Your task to perform on an android device: toggle data saver in the chrome app Image 0: 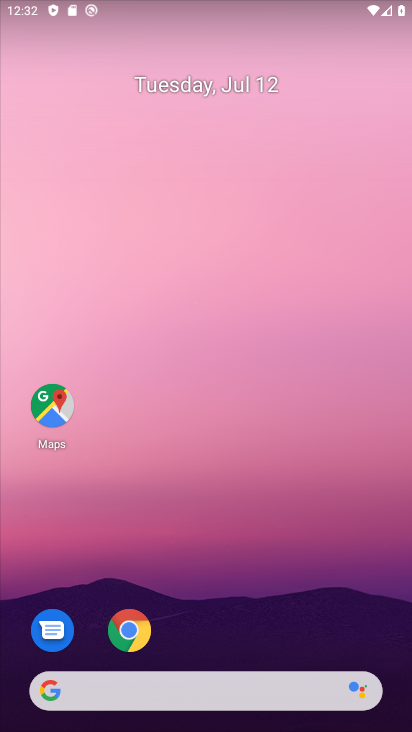
Step 0: click (141, 630)
Your task to perform on an android device: toggle data saver in the chrome app Image 1: 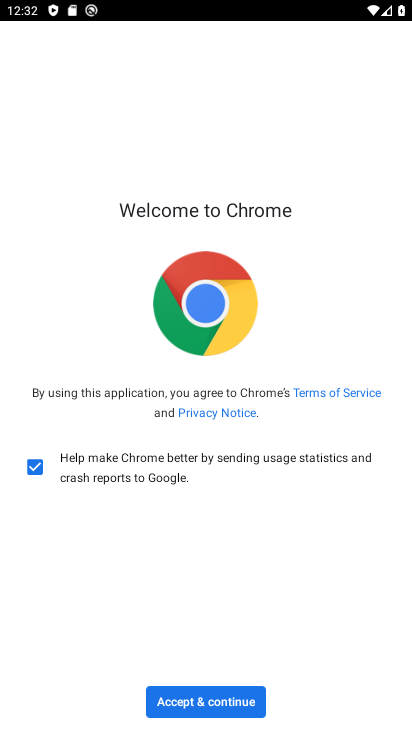
Step 1: click (243, 698)
Your task to perform on an android device: toggle data saver in the chrome app Image 2: 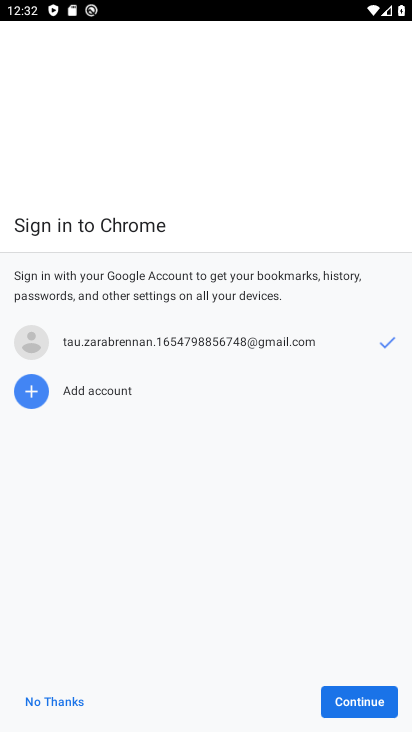
Step 2: click (243, 698)
Your task to perform on an android device: toggle data saver in the chrome app Image 3: 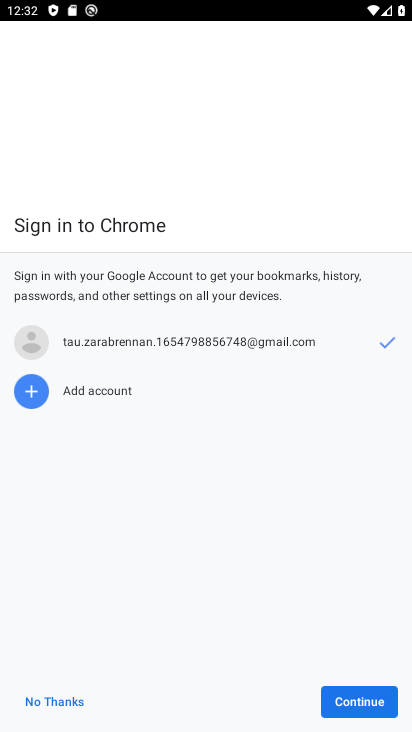
Step 3: click (333, 697)
Your task to perform on an android device: toggle data saver in the chrome app Image 4: 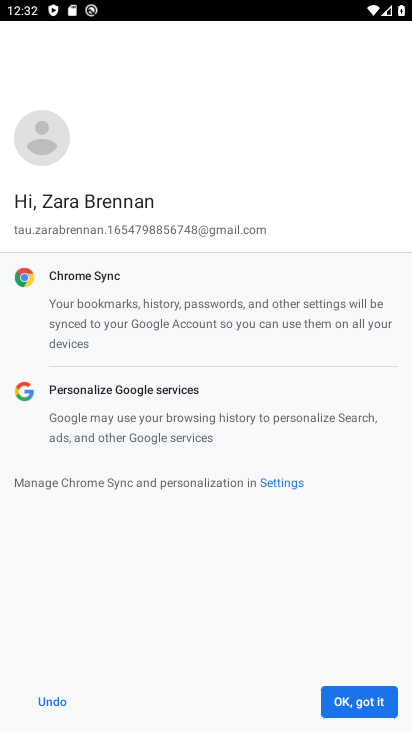
Step 4: click (333, 697)
Your task to perform on an android device: toggle data saver in the chrome app Image 5: 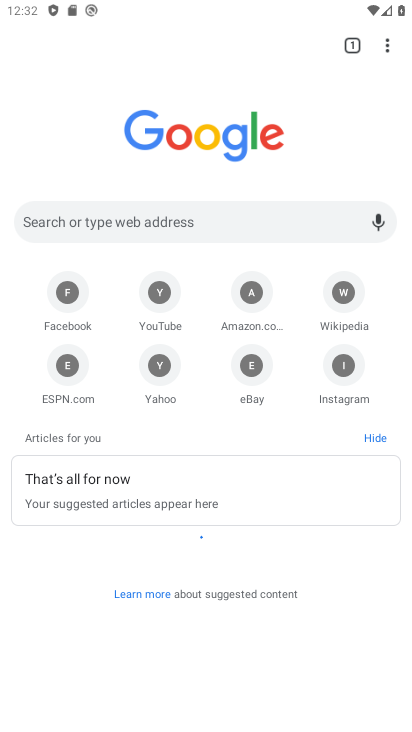
Step 5: click (390, 53)
Your task to perform on an android device: toggle data saver in the chrome app Image 6: 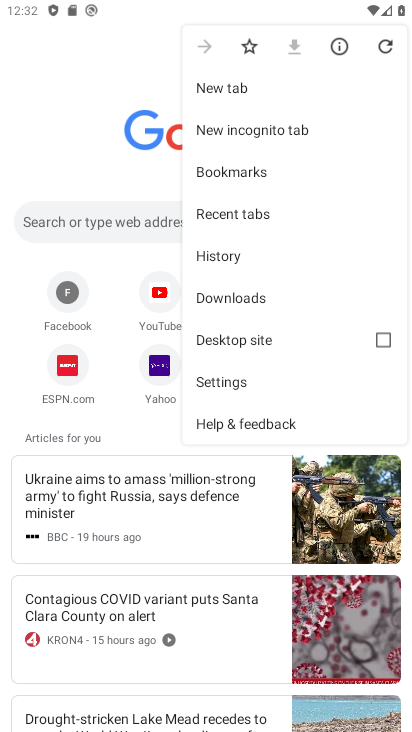
Step 6: click (282, 377)
Your task to perform on an android device: toggle data saver in the chrome app Image 7: 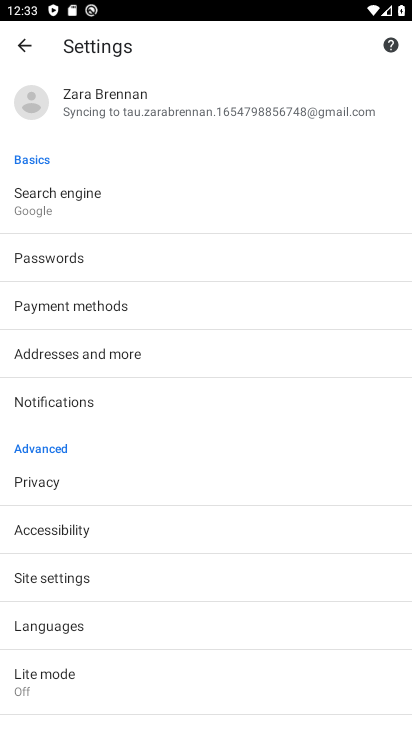
Step 7: click (96, 669)
Your task to perform on an android device: toggle data saver in the chrome app Image 8: 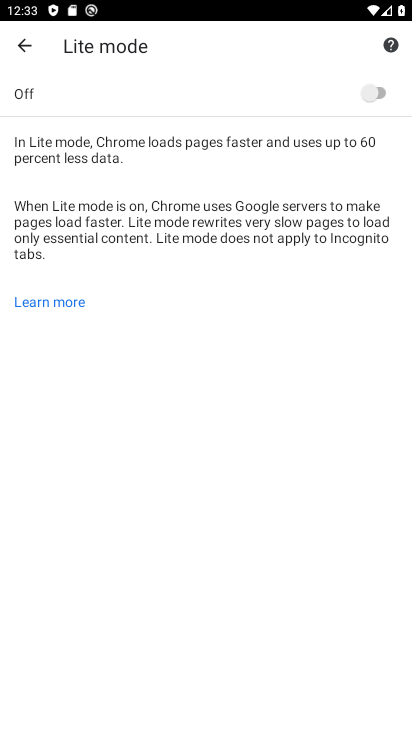
Step 8: click (373, 96)
Your task to perform on an android device: toggle data saver in the chrome app Image 9: 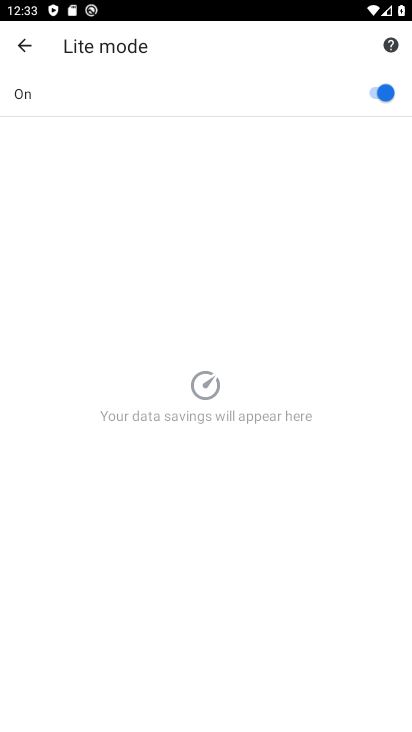
Step 9: task complete